Your task to perform on an android device: change the clock style Image 0: 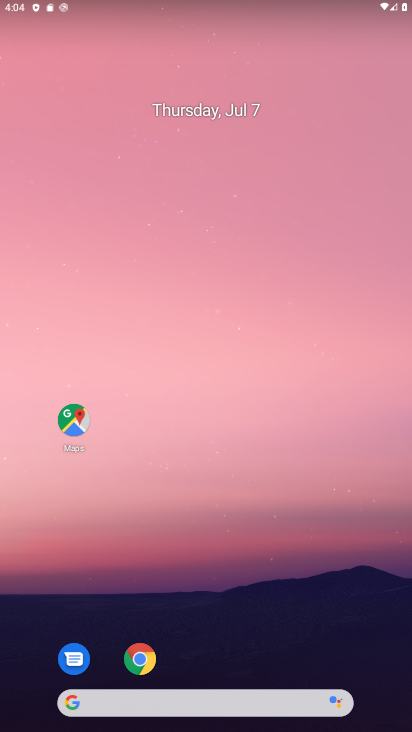
Step 0: drag from (322, 656) to (365, 131)
Your task to perform on an android device: change the clock style Image 1: 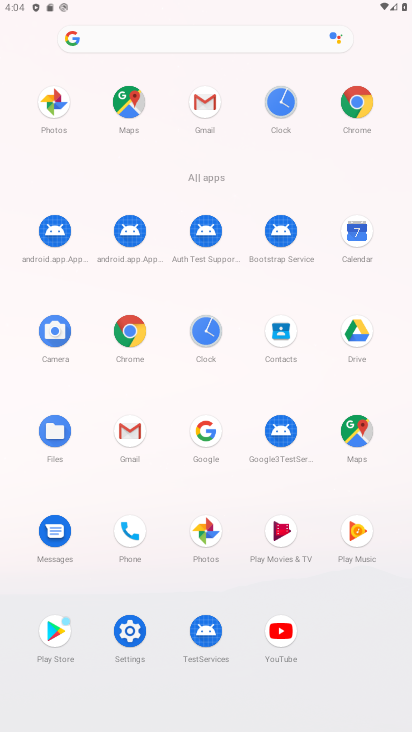
Step 1: click (201, 330)
Your task to perform on an android device: change the clock style Image 2: 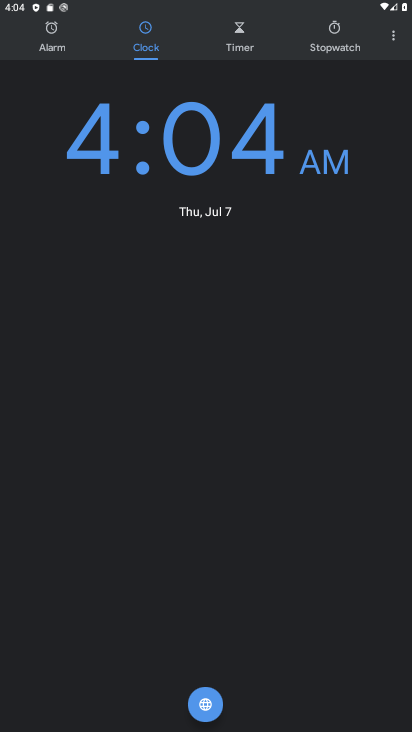
Step 2: click (393, 39)
Your task to perform on an android device: change the clock style Image 3: 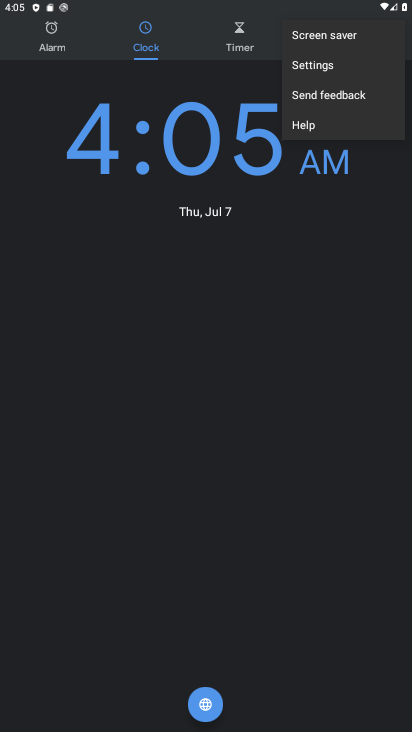
Step 3: click (333, 76)
Your task to perform on an android device: change the clock style Image 4: 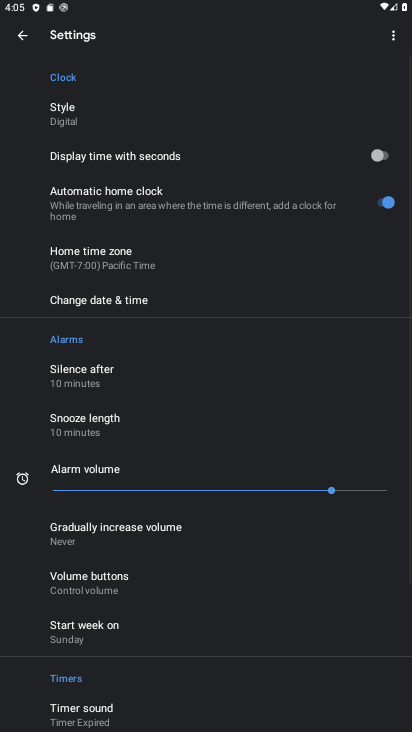
Step 4: drag from (321, 400) to (332, 296)
Your task to perform on an android device: change the clock style Image 5: 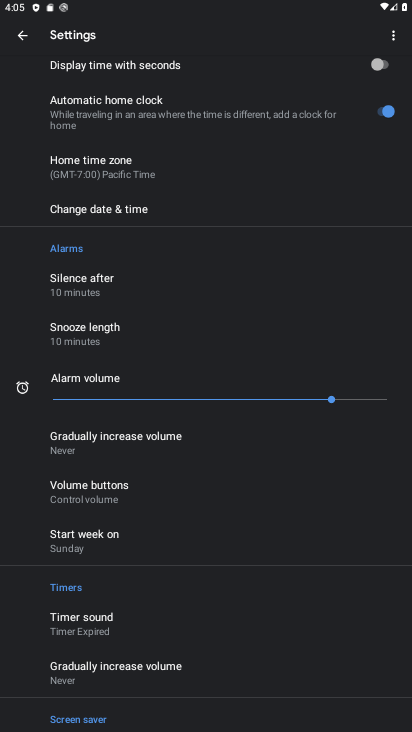
Step 5: drag from (334, 480) to (338, 352)
Your task to perform on an android device: change the clock style Image 6: 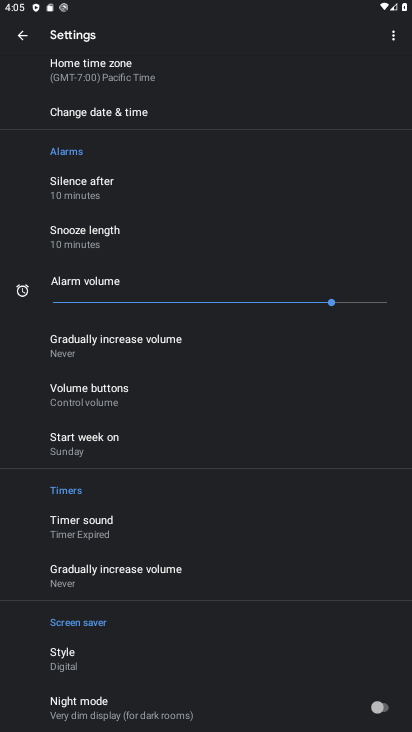
Step 6: drag from (324, 503) to (342, 374)
Your task to perform on an android device: change the clock style Image 7: 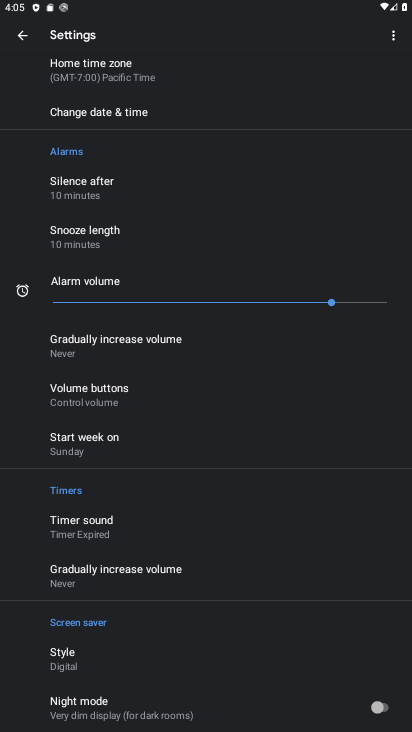
Step 7: drag from (339, 353) to (339, 427)
Your task to perform on an android device: change the clock style Image 8: 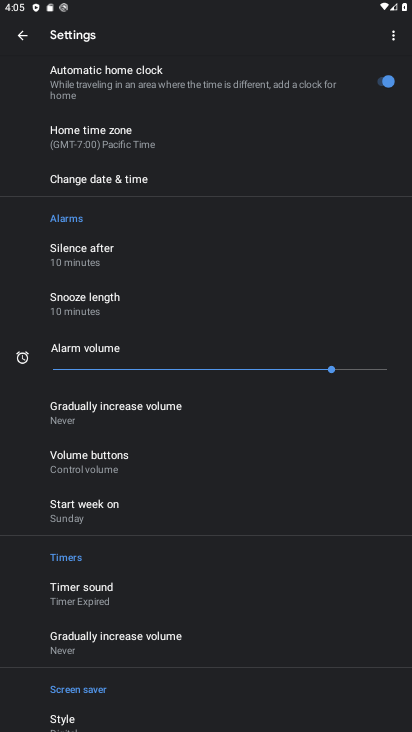
Step 8: drag from (361, 324) to (361, 429)
Your task to perform on an android device: change the clock style Image 9: 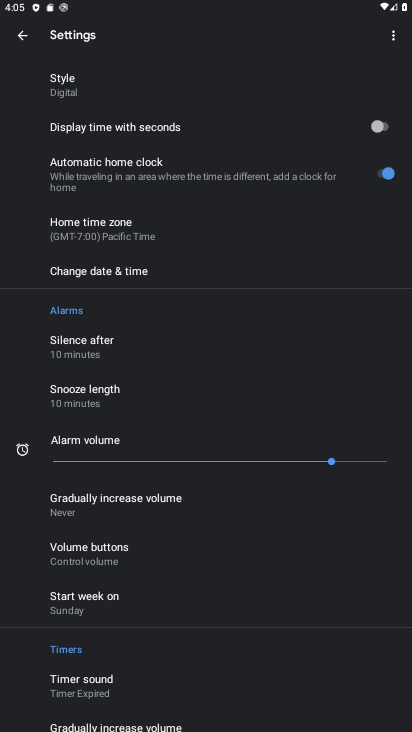
Step 9: drag from (366, 329) to (364, 442)
Your task to perform on an android device: change the clock style Image 10: 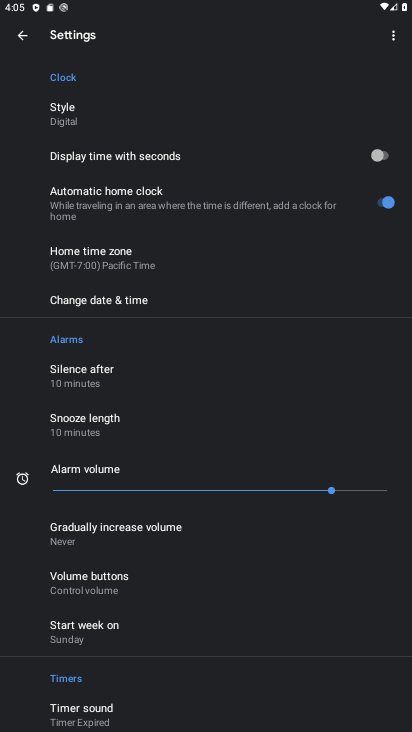
Step 10: click (94, 121)
Your task to perform on an android device: change the clock style Image 11: 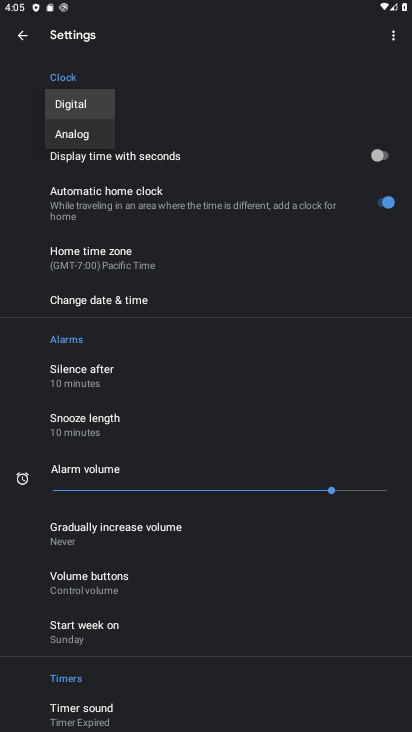
Step 11: click (89, 137)
Your task to perform on an android device: change the clock style Image 12: 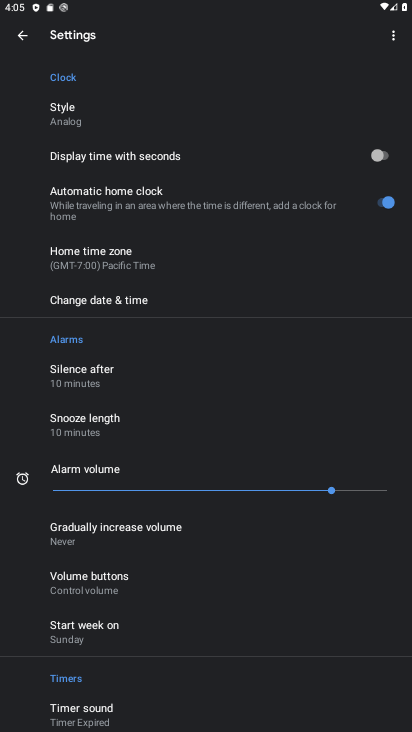
Step 12: task complete